Your task to perform on an android device: Go to eBay Image 0: 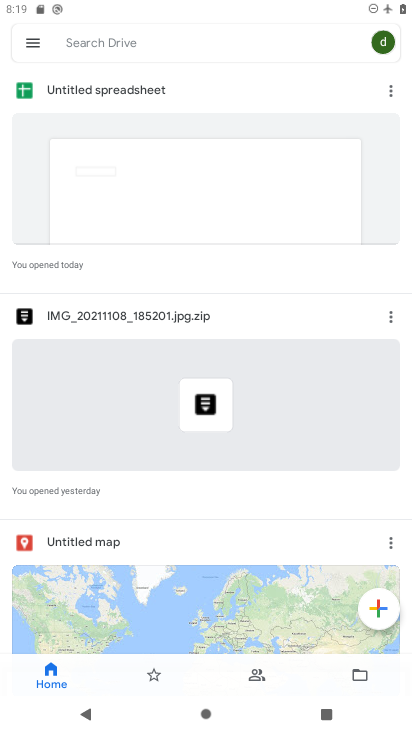
Step 0: press home button
Your task to perform on an android device: Go to eBay Image 1: 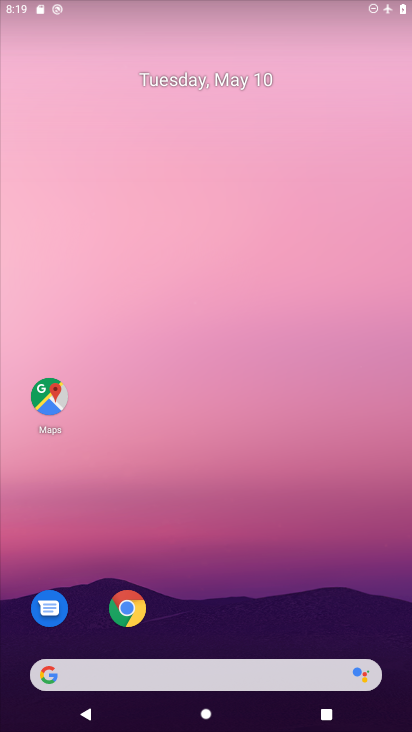
Step 1: drag from (214, 580) to (283, 180)
Your task to perform on an android device: Go to eBay Image 2: 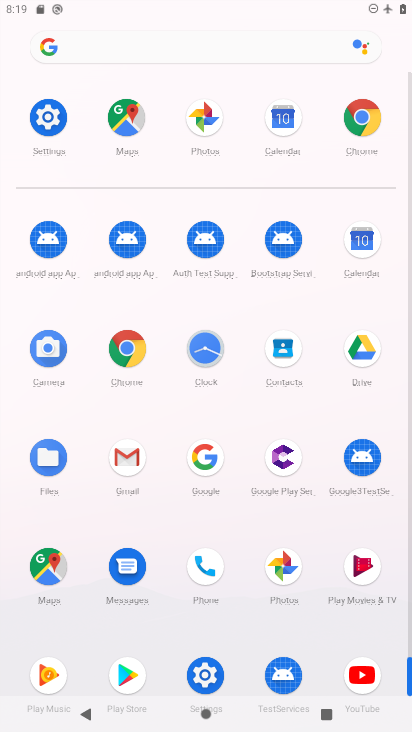
Step 2: click (128, 350)
Your task to perform on an android device: Go to eBay Image 3: 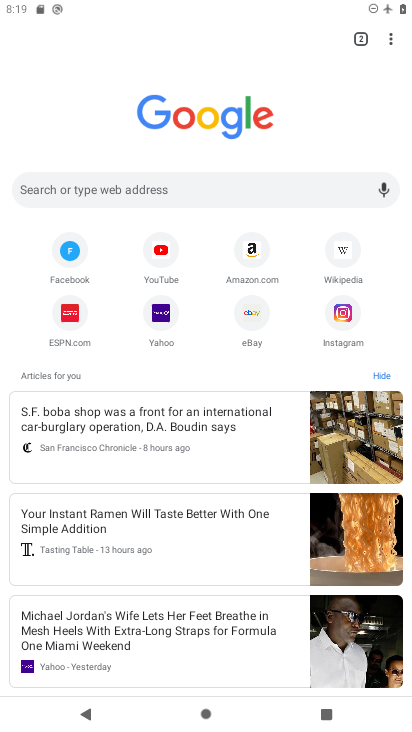
Step 3: click (252, 312)
Your task to perform on an android device: Go to eBay Image 4: 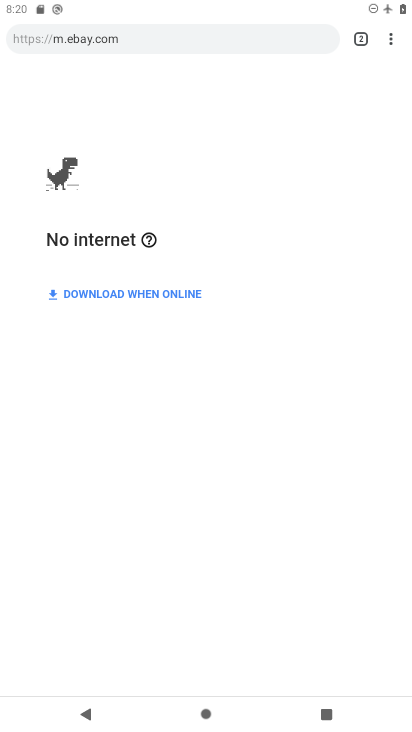
Step 4: task complete